Your task to perform on an android device: Check the weather Image 0: 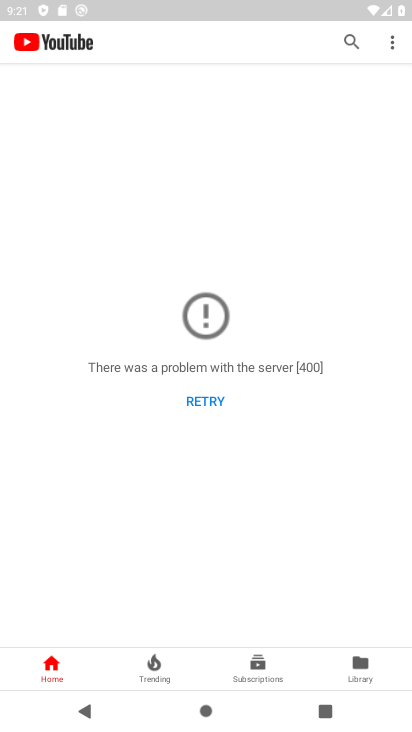
Step 0: press home button
Your task to perform on an android device: Check the weather Image 1: 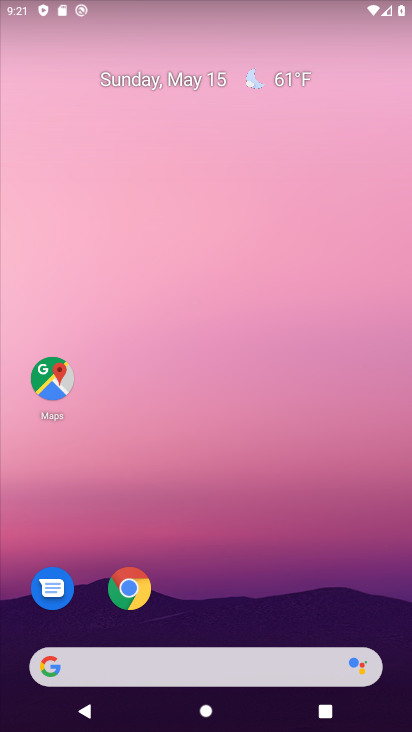
Step 1: click (277, 81)
Your task to perform on an android device: Check the weather Image 2: 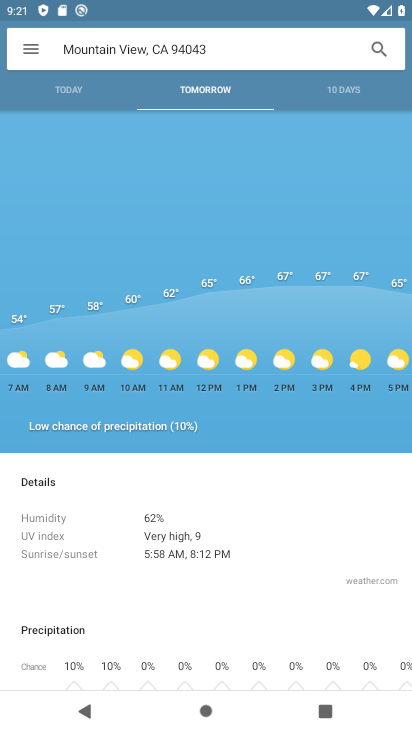
Step 2: drag from (209, 508) to (228, 399)
Your task to perform on an android device: Check the weather Image 3: 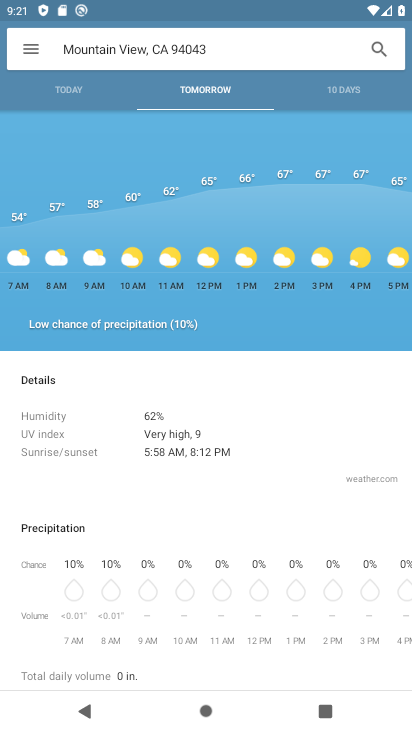
Step 3: click (73, 97)
Your task to perform on an android device: Check the weather Image 4: 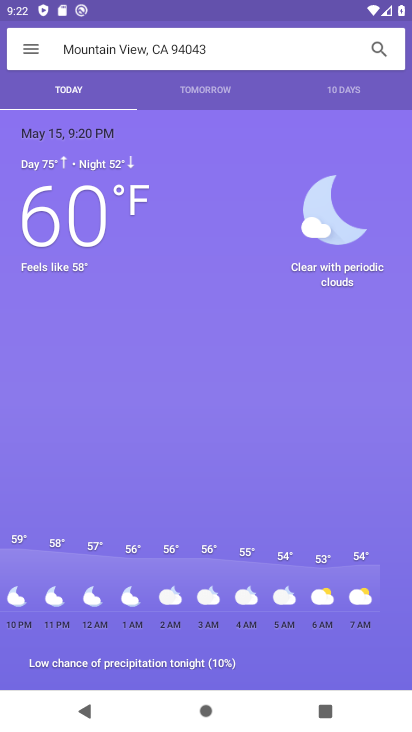
Step 4: task complete